Your task to perform on an android device: turn off smart reply in the gmail app Image 0: 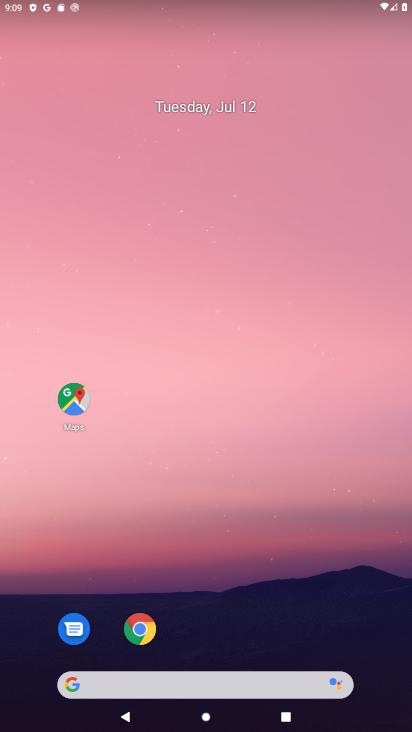
Step 0: drag from (344, 621) to (242, 247)
Your task to perform on an android device: turn off smart reply in the gmail app Image 1: 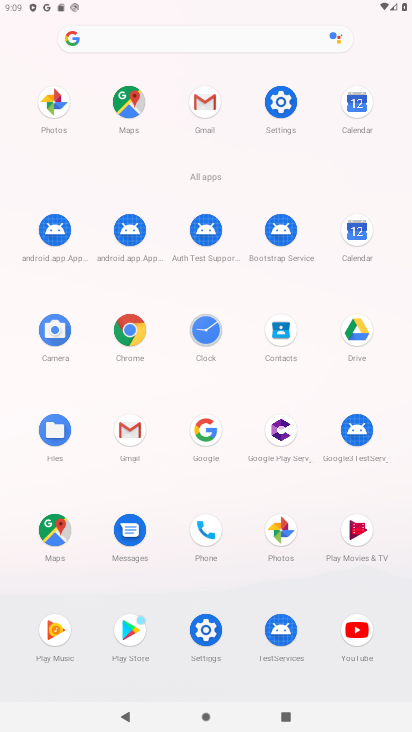
Step 1: click (208, 93)
Your task to perform on an android device: turn off smart reply in the gmail app Image 2: 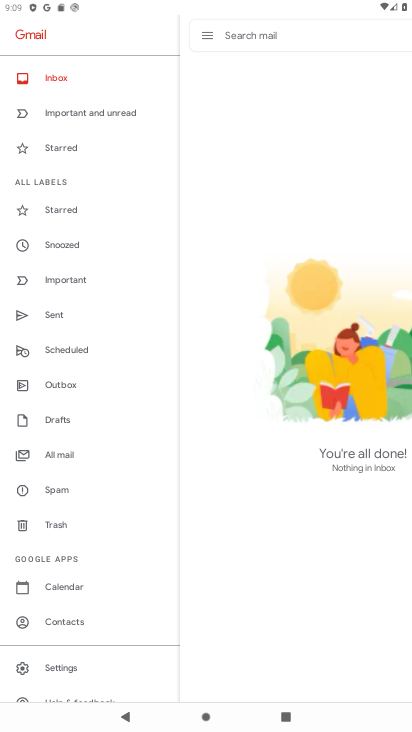
Step 2: click (89, 671)
Your task to perform on an android device: turn off smart reply in the gmail app Image 3: 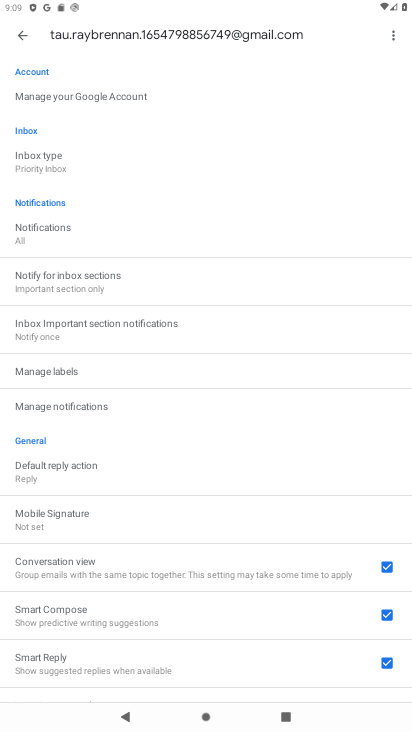
Step 3: drag from (143, 657) to (126, 390)
Your task to perform on an android device: turn off smart reply in the gmail app Image 4: 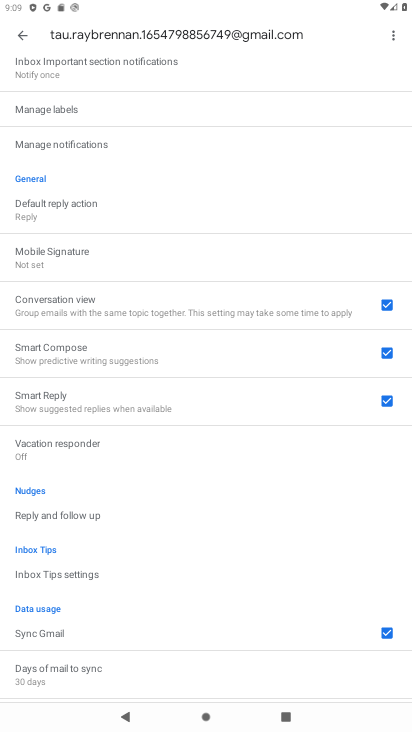
Step 4: click (386, 406)
Your task to perform on an android device: turn off smart reply in the gmail app Image 5: 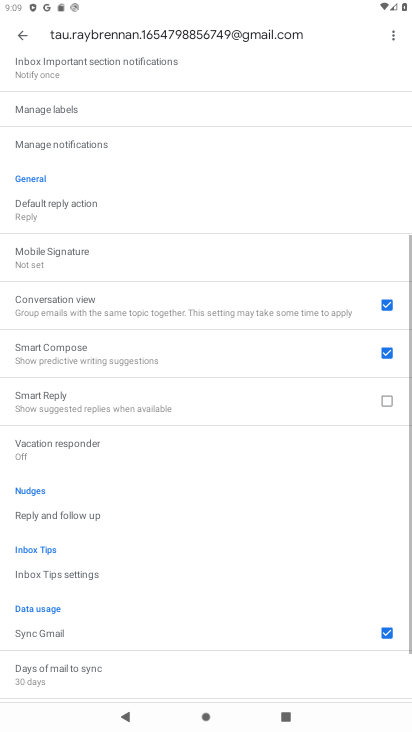
Step 5: task complete